Your task to perform on an android device: Open privacy settings Image 0: 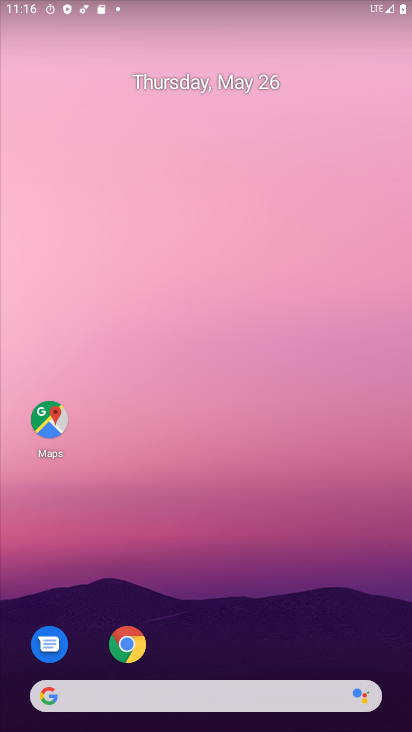
Step 0: drag from (92, 731) to (98, 64)
Your task to perform on an android device: Open privacy settings Image 1: 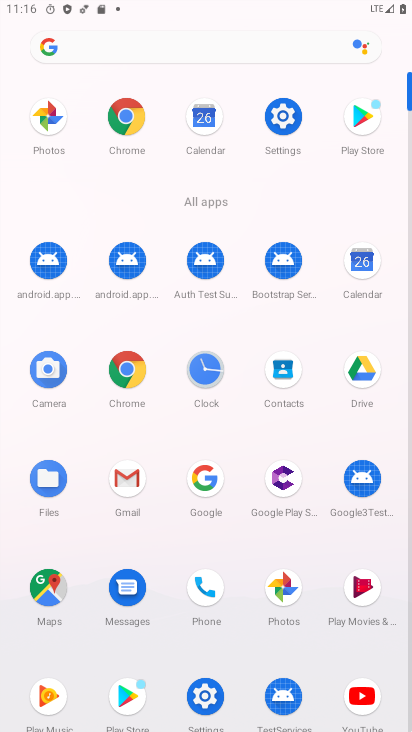
Step 1: click (288, 121)
Your task to perform on an android device: Open privacy settings Image 2: 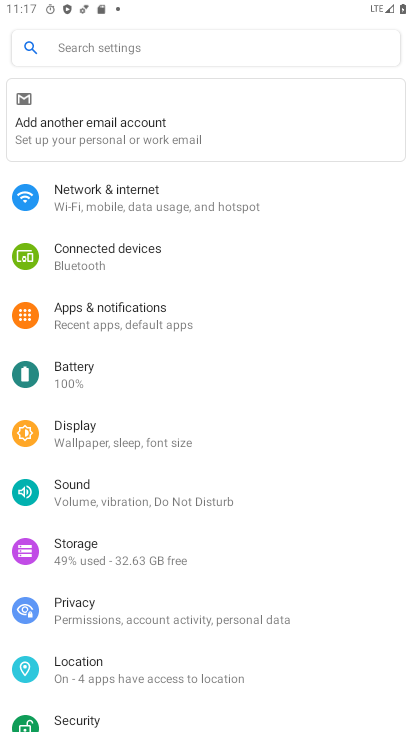
Step 2: click (98, 615)
Your task to perform on an android device: Open privacy settings Image 3: 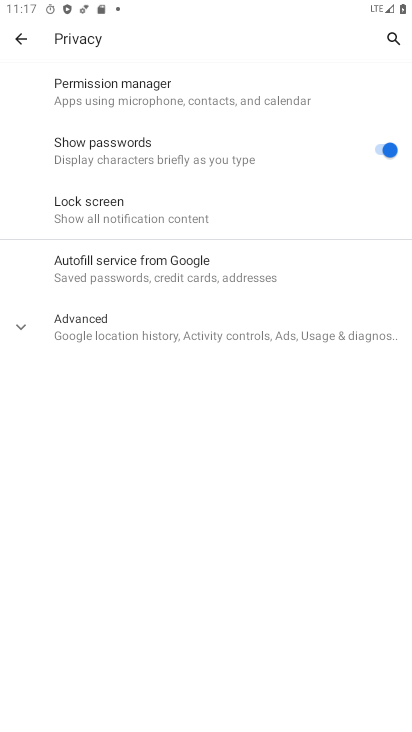
Step 3: task complete